Your task to perform on an android device: set an alarm Image 0: 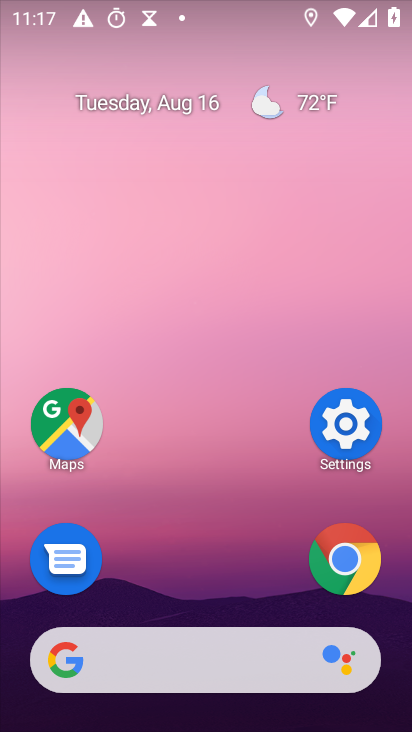
Step 0: drag from (223, 579) to (273, 193)
Your task to perform on an android device: set an alarm Image 1: 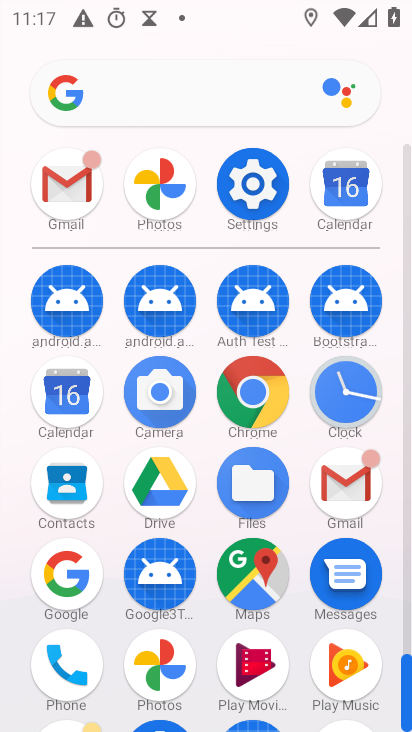
Step 1: click (338, 395)
Your task to perform on an android device: set an alarm Image 2: 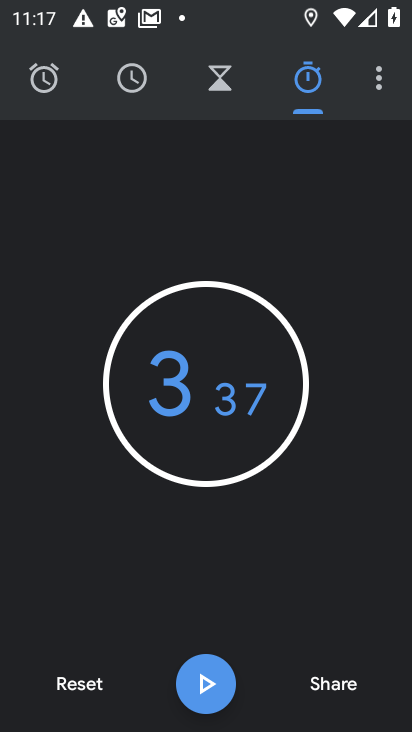
Step 2: click (51, 74)
Your task to perform on an android device: set an alarm Image 3: 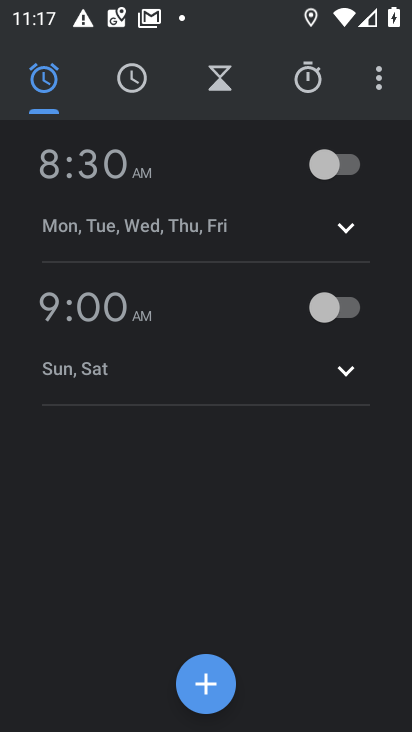
Step 3: click (342, 170)
Your task to perform on an android device: set an alarm Image 4: 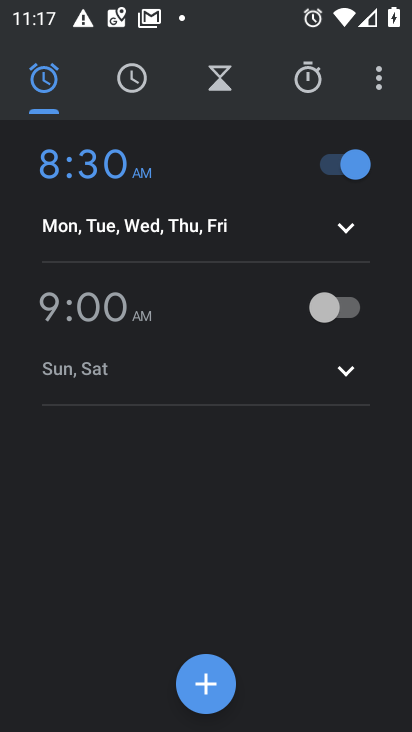
Step 4: task complete